Your task to perform on an android device: Open ESPN.com Image 0: 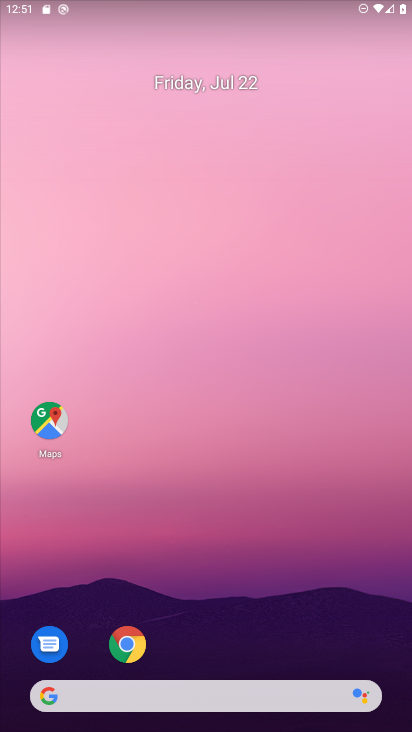
Step 0: click (123, 652)
Your task to perform on an android device: Open ESPN.com Image 1: 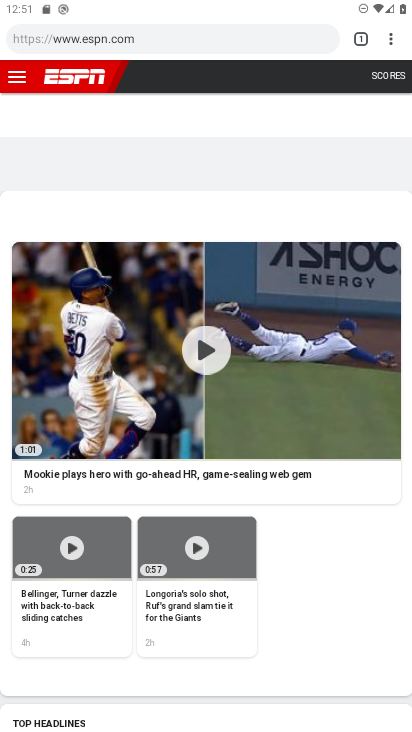
Step 1: task complete